Your task to perform on an android device: add a contact in the contacts app Image 0: 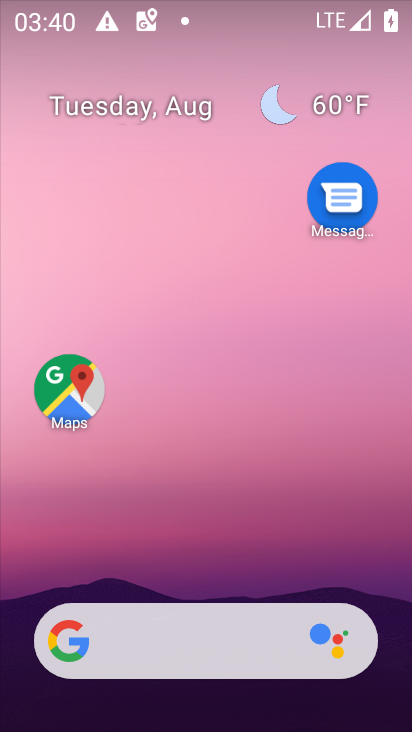
Step 0: drag from (229, 571) to (234, 10)
Your task to perform on an android device: add a contact in the contacts app Image 1: 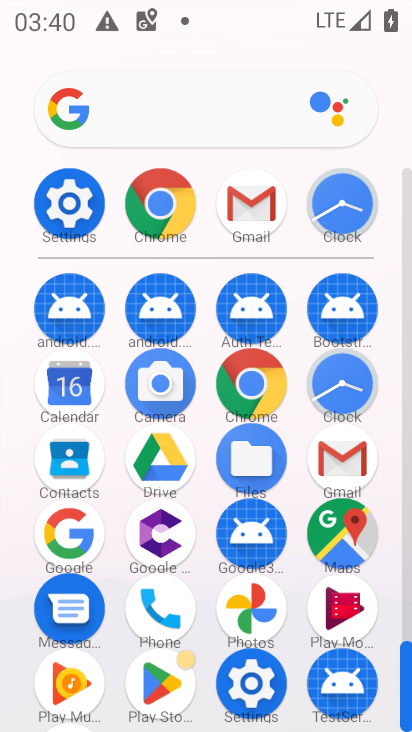
Step 1: click (66, 451)
Your task to perform on an android device: add a contact in the contacts app Image 2: 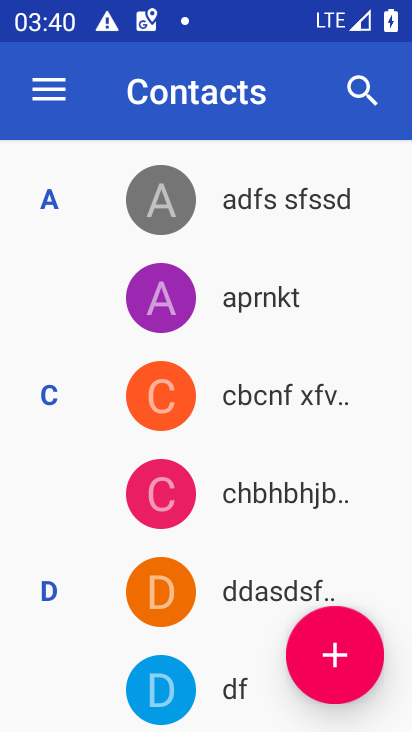
Step 2: click (347, 646)
Your task to perform on an android device: add a contact in the contacts app Image 3: 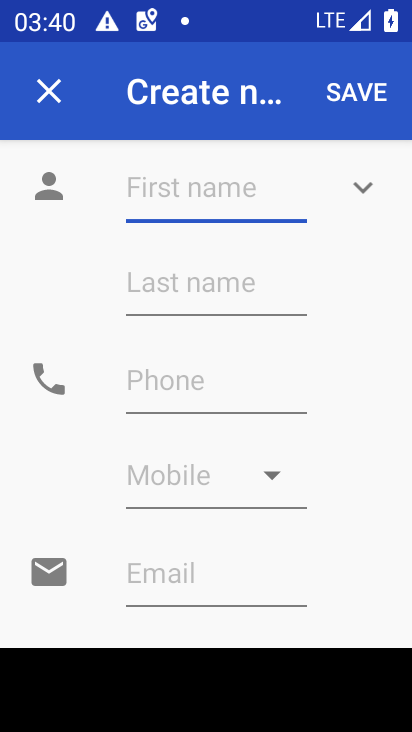
Step 3: type "sadfgghg"
Your task to perform on an android device: add a contact in the contacts app Image 4: 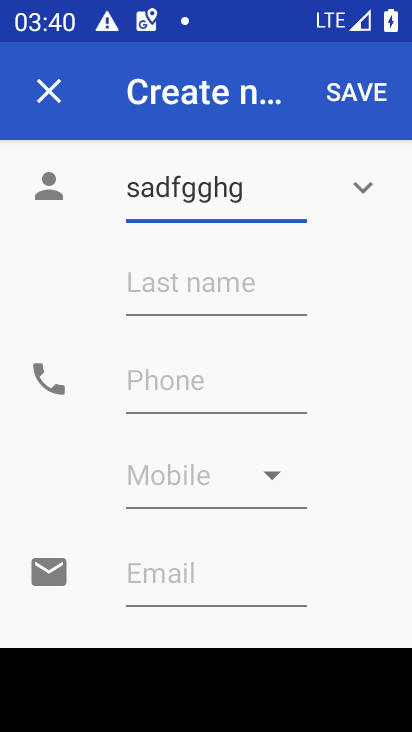
Step 4: click (161, 295)
Your task to perform on an android device: add a contact in the contacts app Image 5: 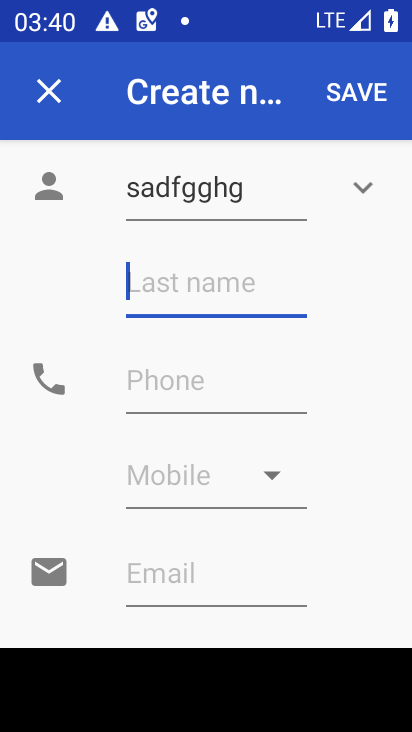
Step 5: type "adfsdfggds"
Your task to perform on an android device: add a contact in the contacts app Image 6: 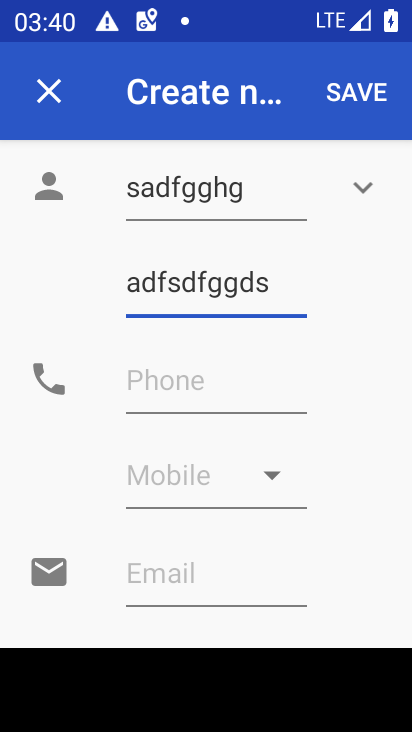
Step 6: click (258, 360)
Your task to perform on an android device: add a contact in the contacts app Image 7: 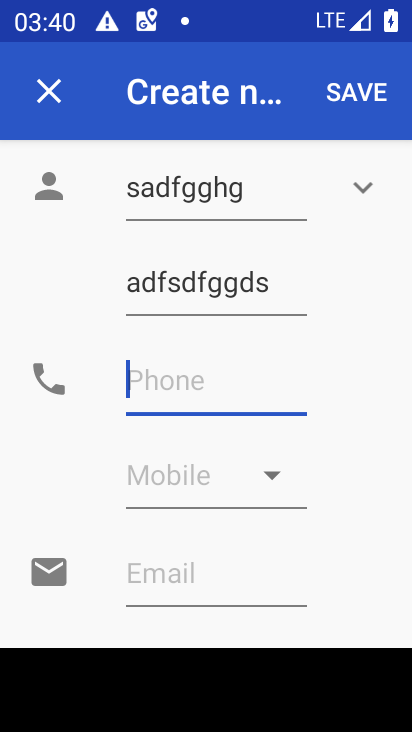
Step 7: type "12345678908765432"
Your task to perform on an android device: add a contact in the contacts app Image 8: 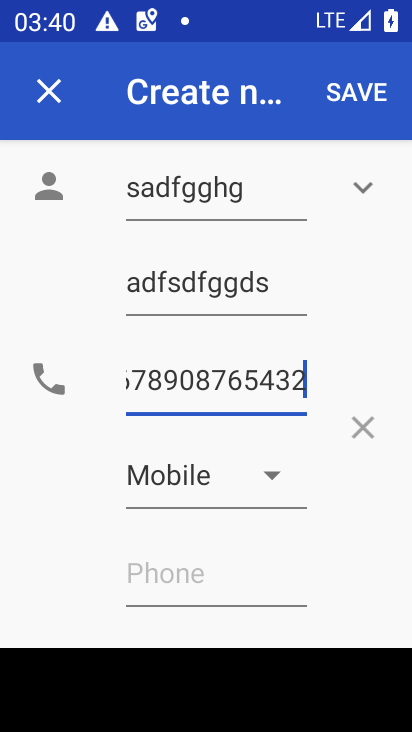
Step 8: click (367, 84)
Your task to perform on an android device: add a contact in the contacts app Image 9: 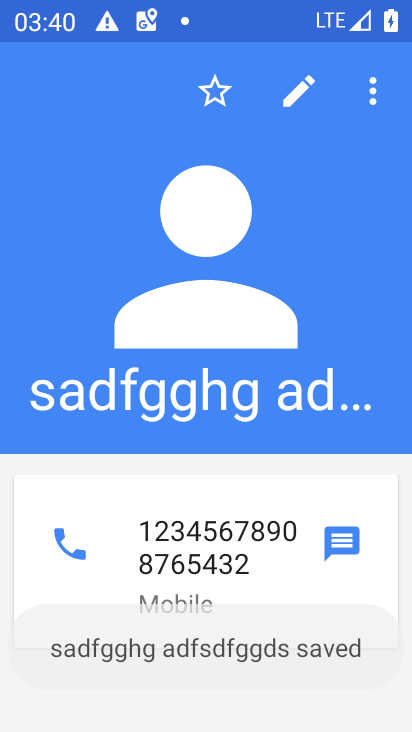
Step 9: task complete